Your task to perform on an android device: Open Maps and search for coffee Image 0: 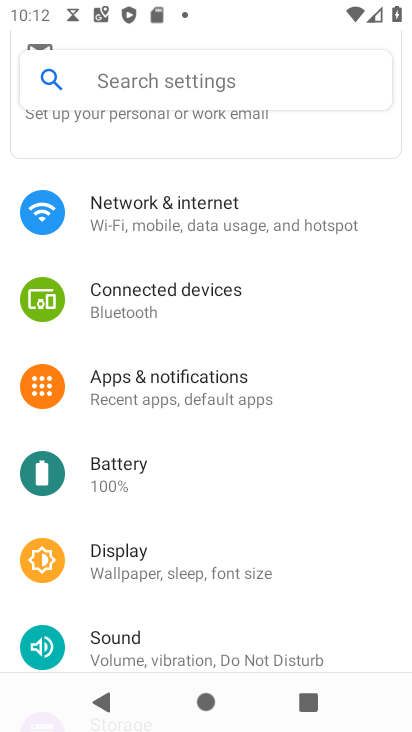
Step 0: press home button
Your task to perform on an android device: Open Maps and search for coffee Image 1: 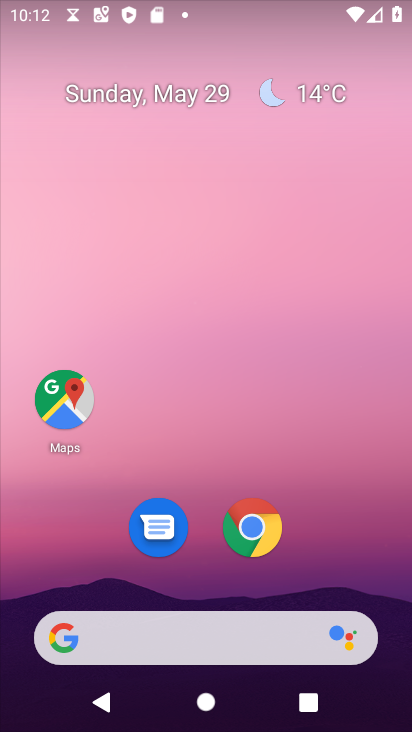
Step 1: click (62, 397)
Your task to perform on an android device: Open Maps and search for coffee Image 2: 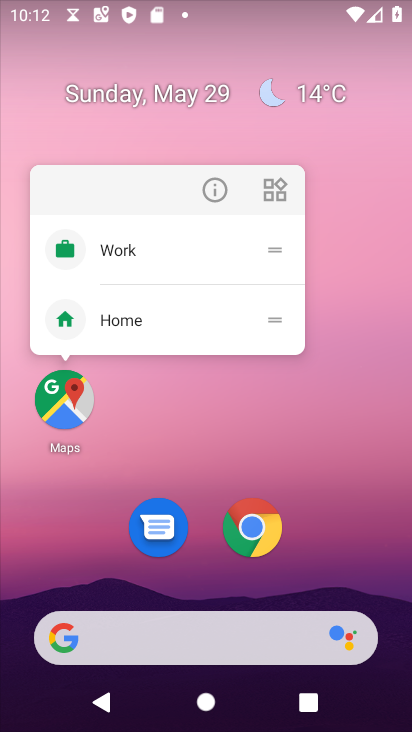
Step 2: click (62, 400)
Your task to perform on an android device: Open Maps and search for coffee Image 3: 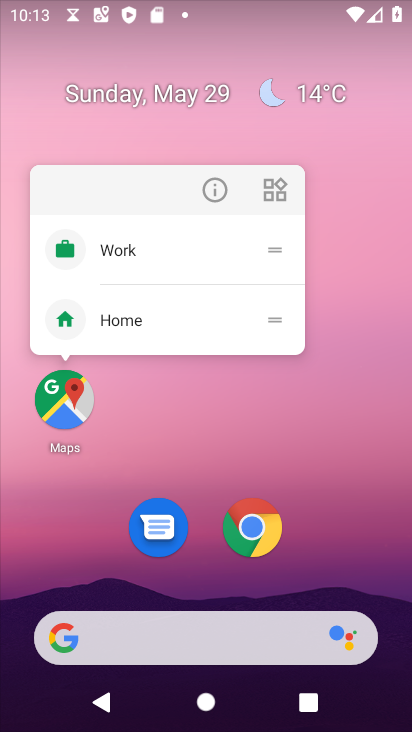
Step 3: click (62, 399)
Your task to perform on an android device: Open Maps and search for coffee Image 4: 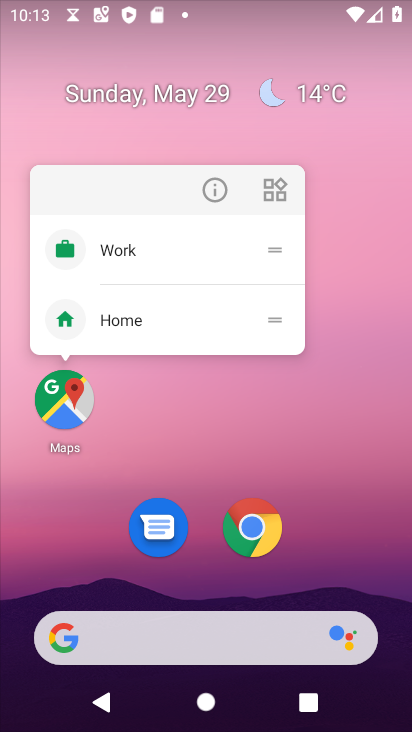
Step 4: click (63, 404)
Your task to perform on an android device: Open Maps and search for coffee Image 5: 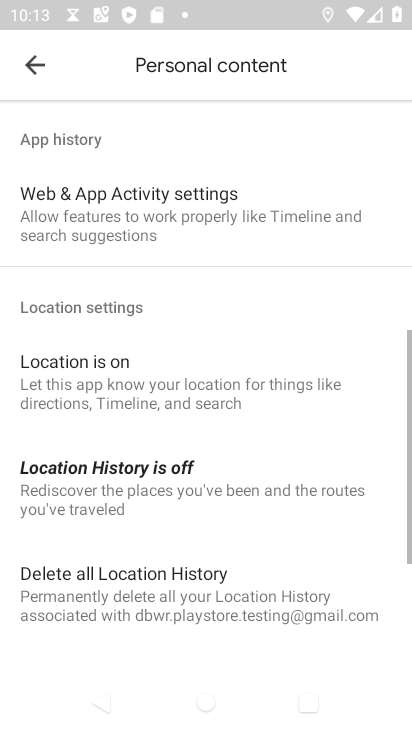
Step 5: click (39, 69)
Your task to perform on an android device: Open Maps and search for coffee Image 6: 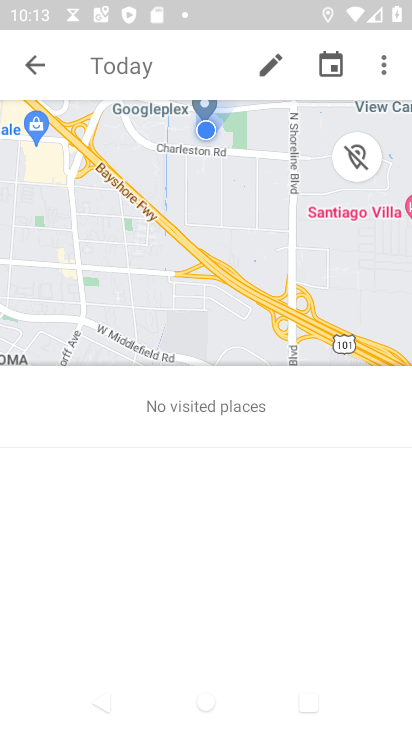
Step 6: click (39, 68)
Your task to perform on an android device: Open Maps and search for coffee Image 7: 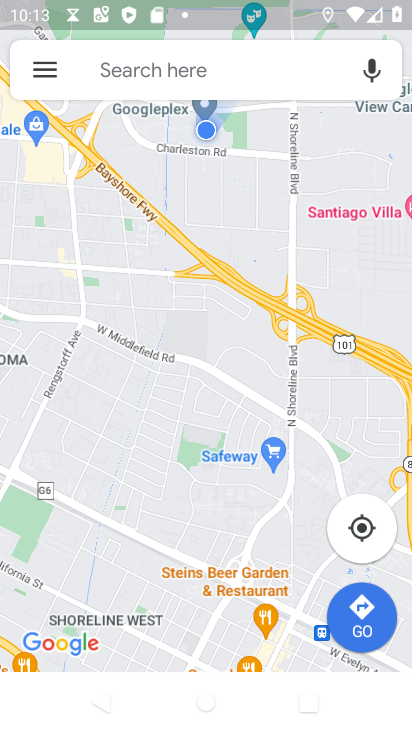
Step 7: click (175, 71)
Your task to perform on an android device: Open Maps and search for coffee Image 8: 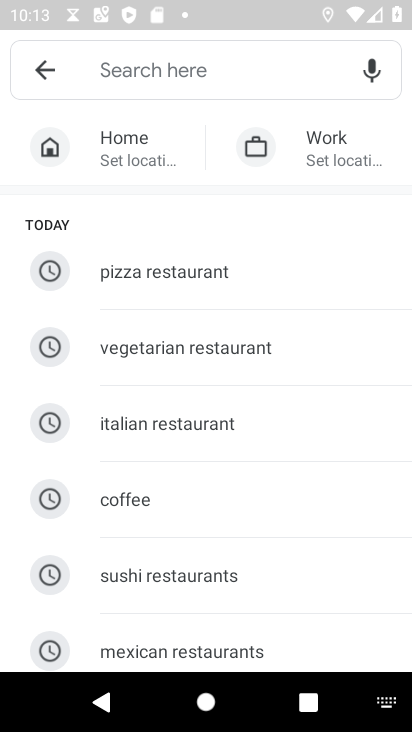
Step 8: click (148, 513)
Your task to perform on an android device: Open Maps and search for coffee Image 9: 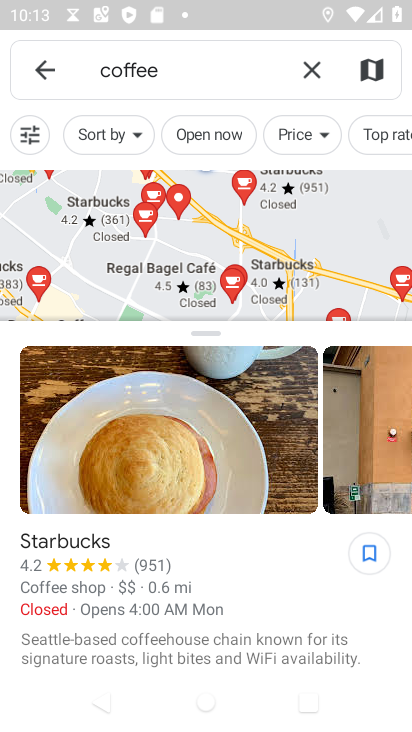
Step 9: task complete